Your task to perform on an android device: turn off translation in the chrome app Image 0: 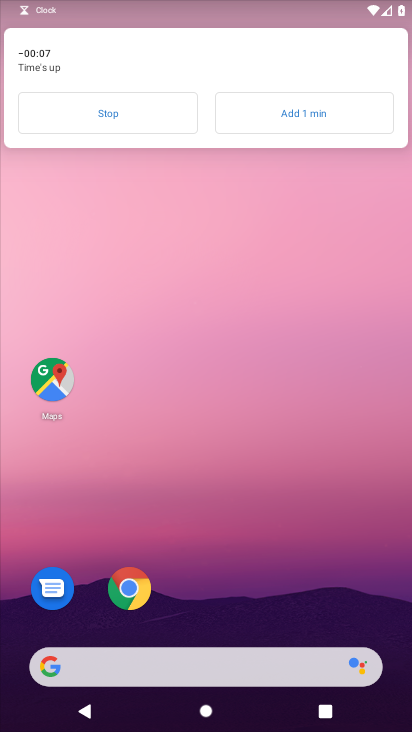
Step 0: click (121, 106)
Your task to perform on an android device: turn off translation in the chrome app Image 1: 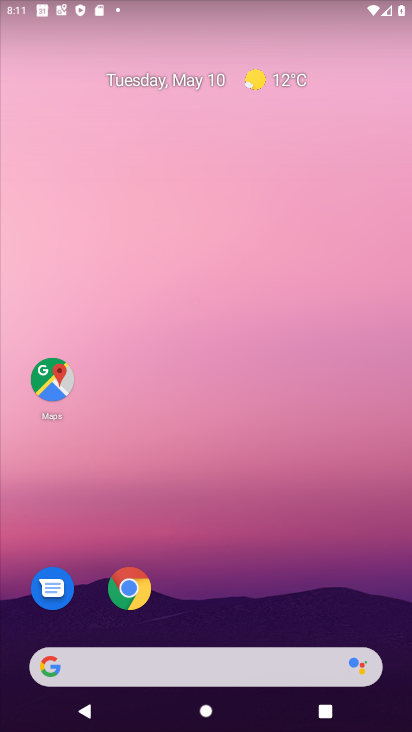
Step 1: click (132, 591)
Your task to perform on an android device: turn off translation in the chrome app Image 2: 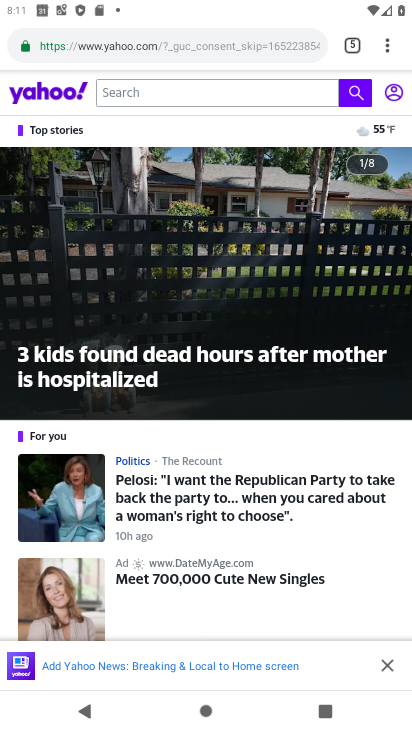
Step 2: click (379, 42)
Your task to perform on an android device: turn off translation in the chrome app Image 3: 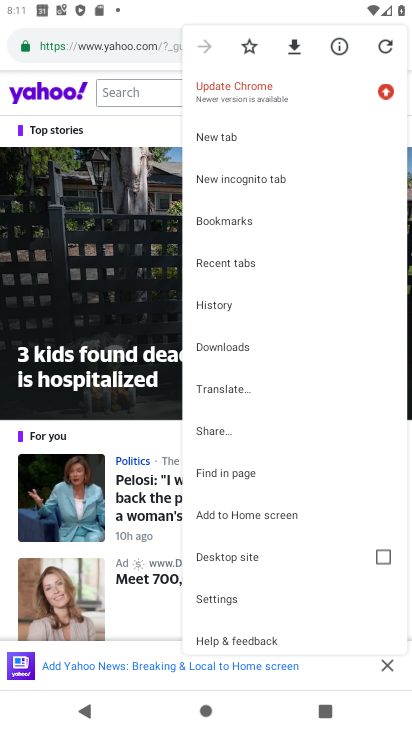
Step 3: click (218, 595)
Your task to perform on an android device: turn off translation in the chrome app Image 4: 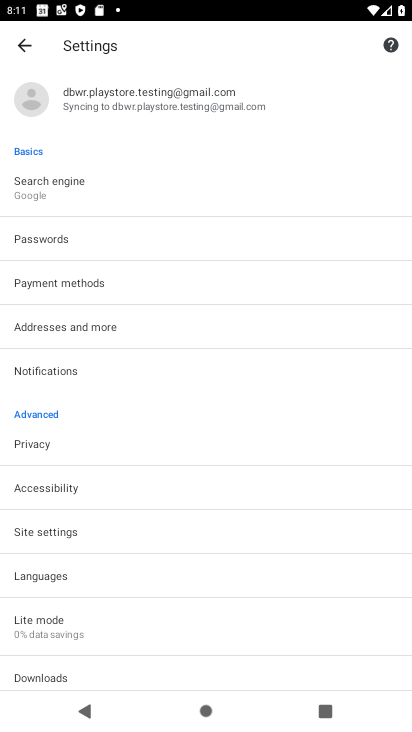
Step 4: click (60, 587)
Your task to perform on an android device: turn off translation in the chrome app Image 5: 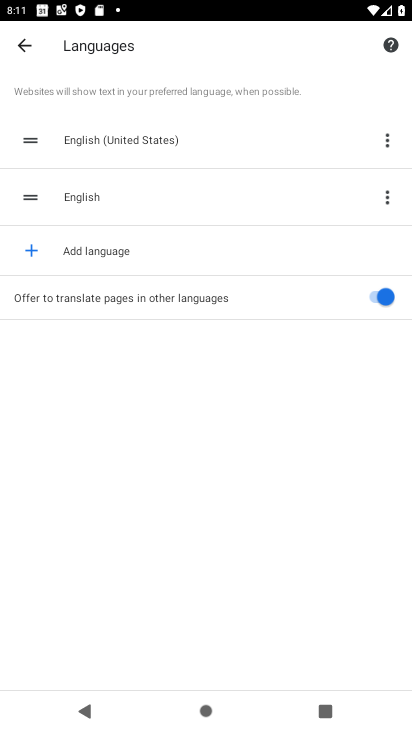
Step 5: click (382, 299)
Your task to perform on an android device: turn off translation in the chrome app Image 6: 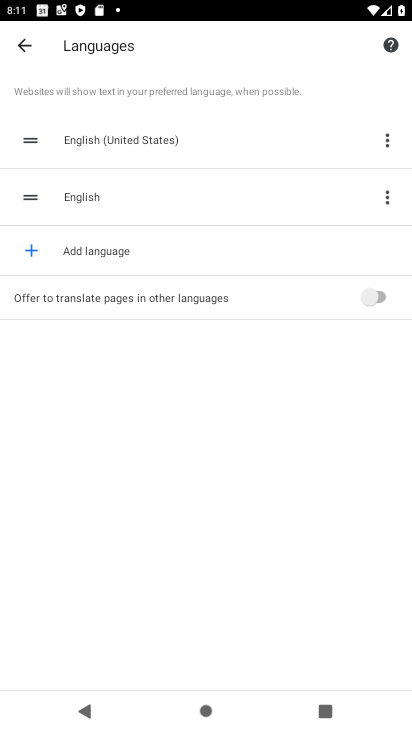
Step 6: task complete